Your task to perform on an android device: What's the weather going to be this weekend? Image 0: 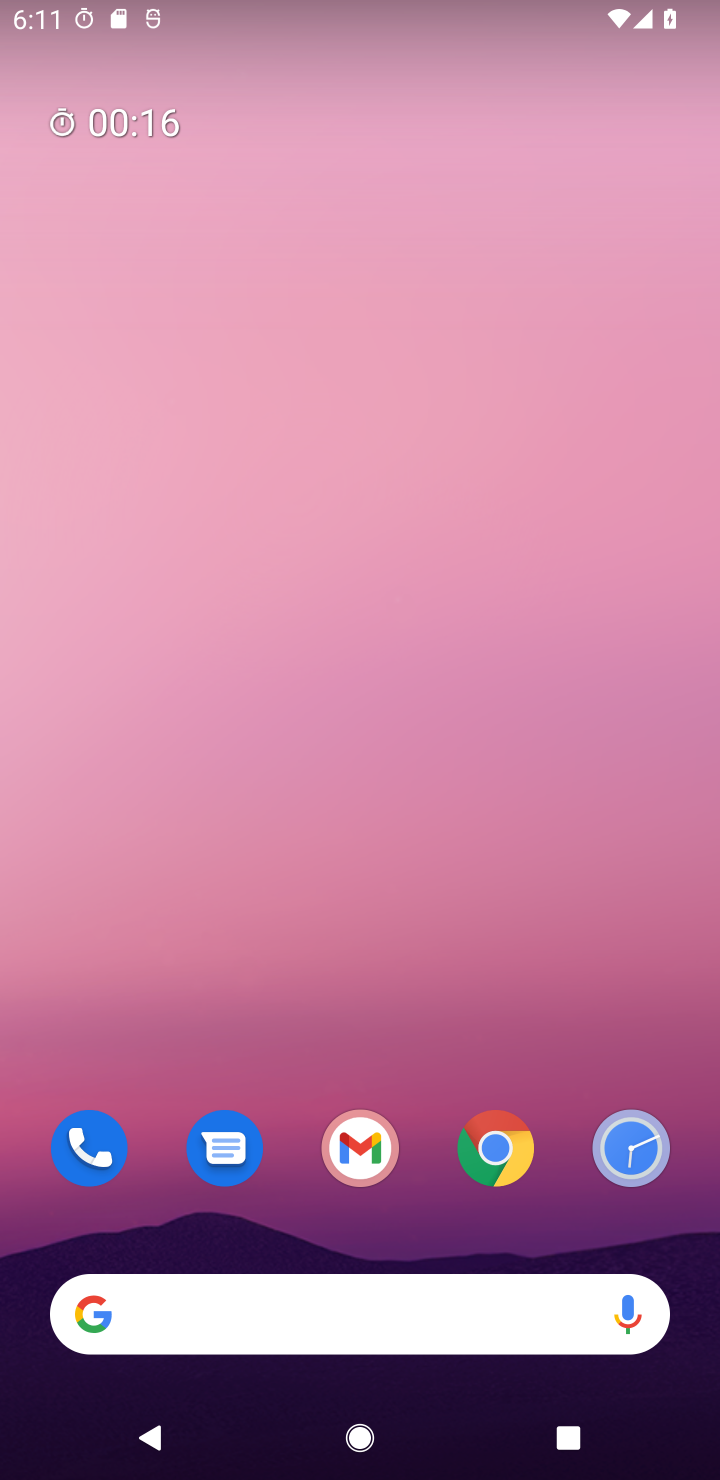
Step 0: click (331, 1311)
Your task to perform on an android device: What's the weather going to be this weekend? Image 1: 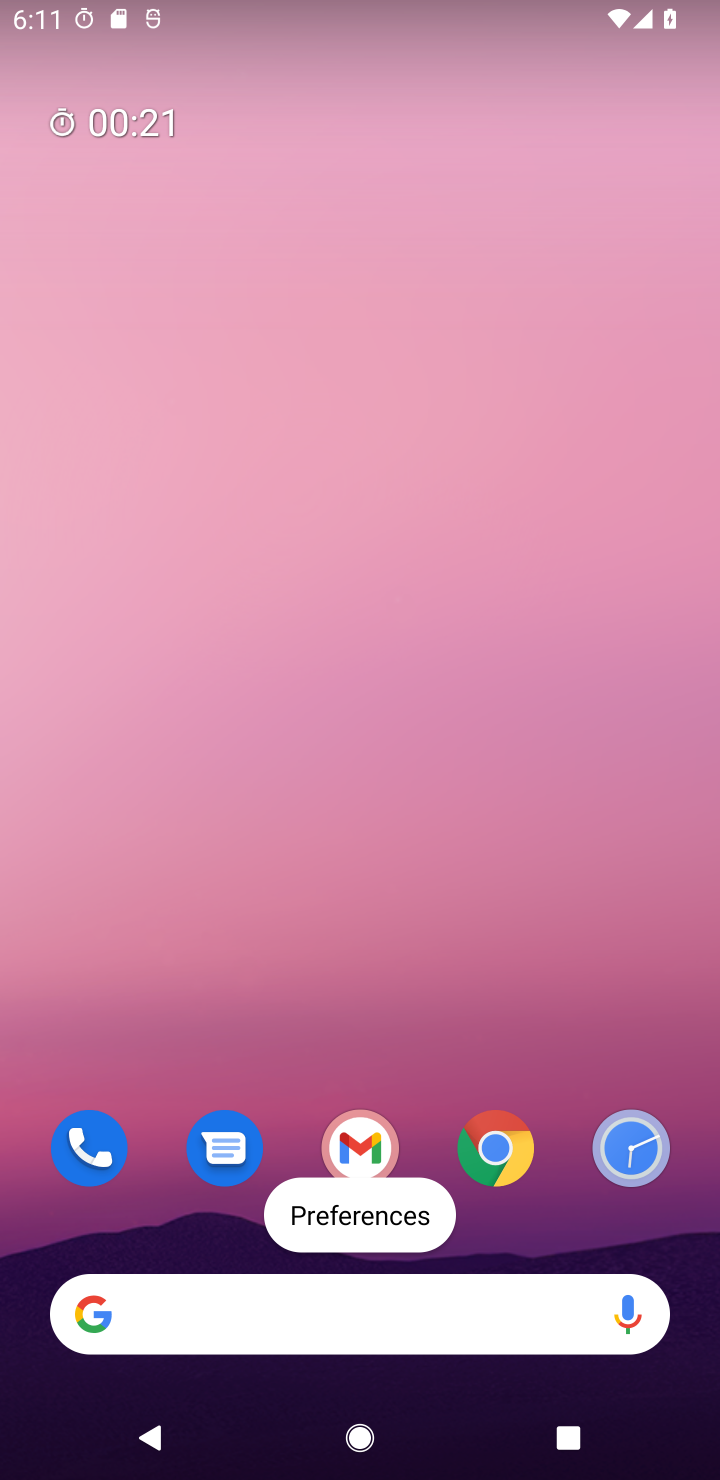
Step 1: drag from (169, 1234) to (418, 39)
Your task to perform on an android device: What's the weather going to be this weekend? Image 2: 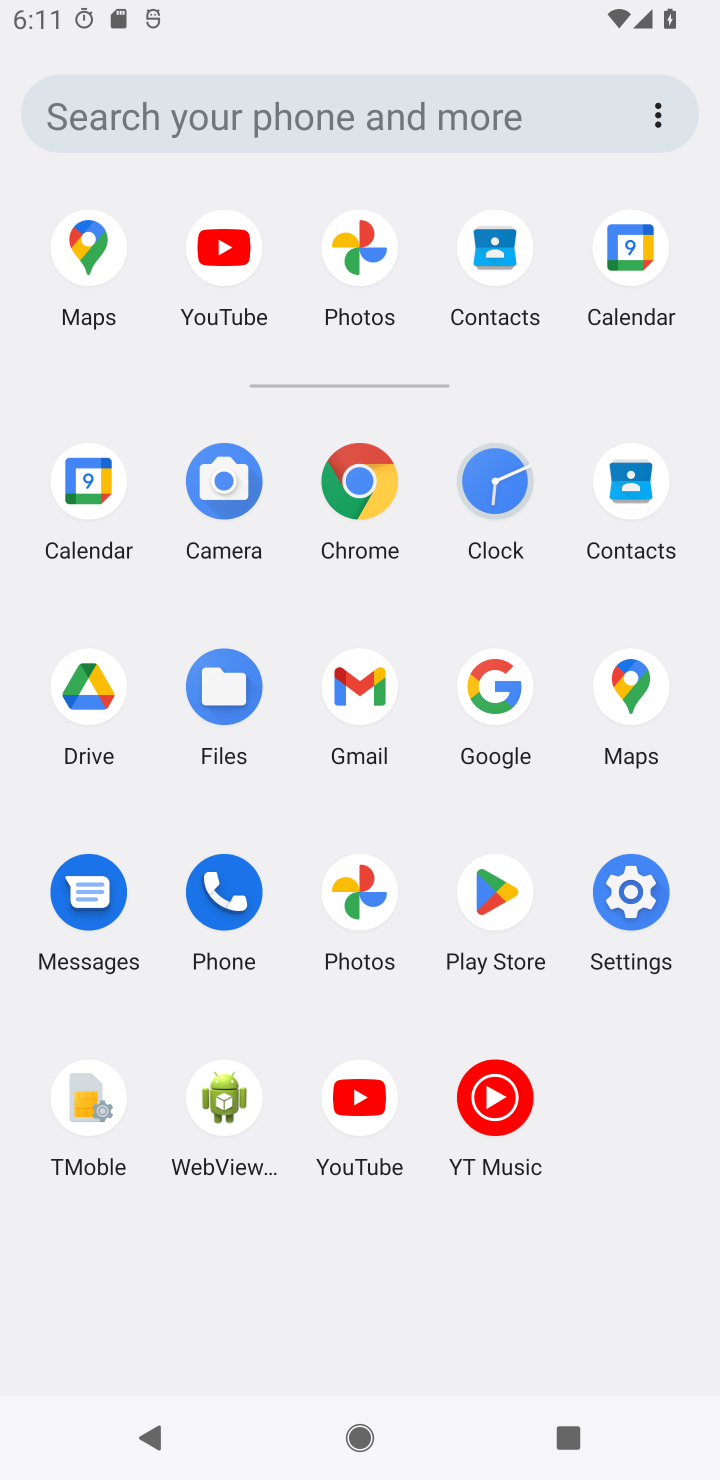
Step 2: click (500, 700)
Your task to perform on an android device: What's the weather going to be this weekend? Image 3: 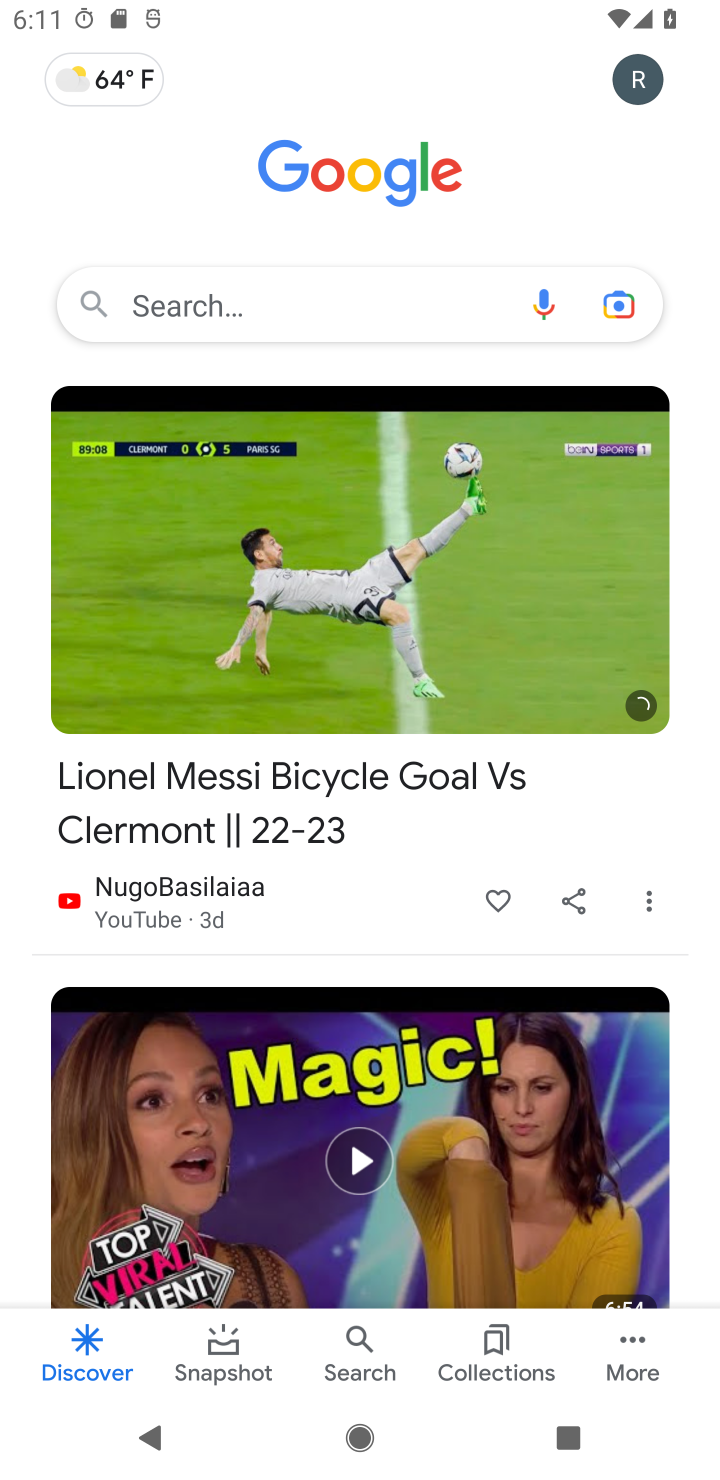
Step 3: click (352, 284)
Your task to perform on an android device: What's the weather going to be this weekend? Image 4: 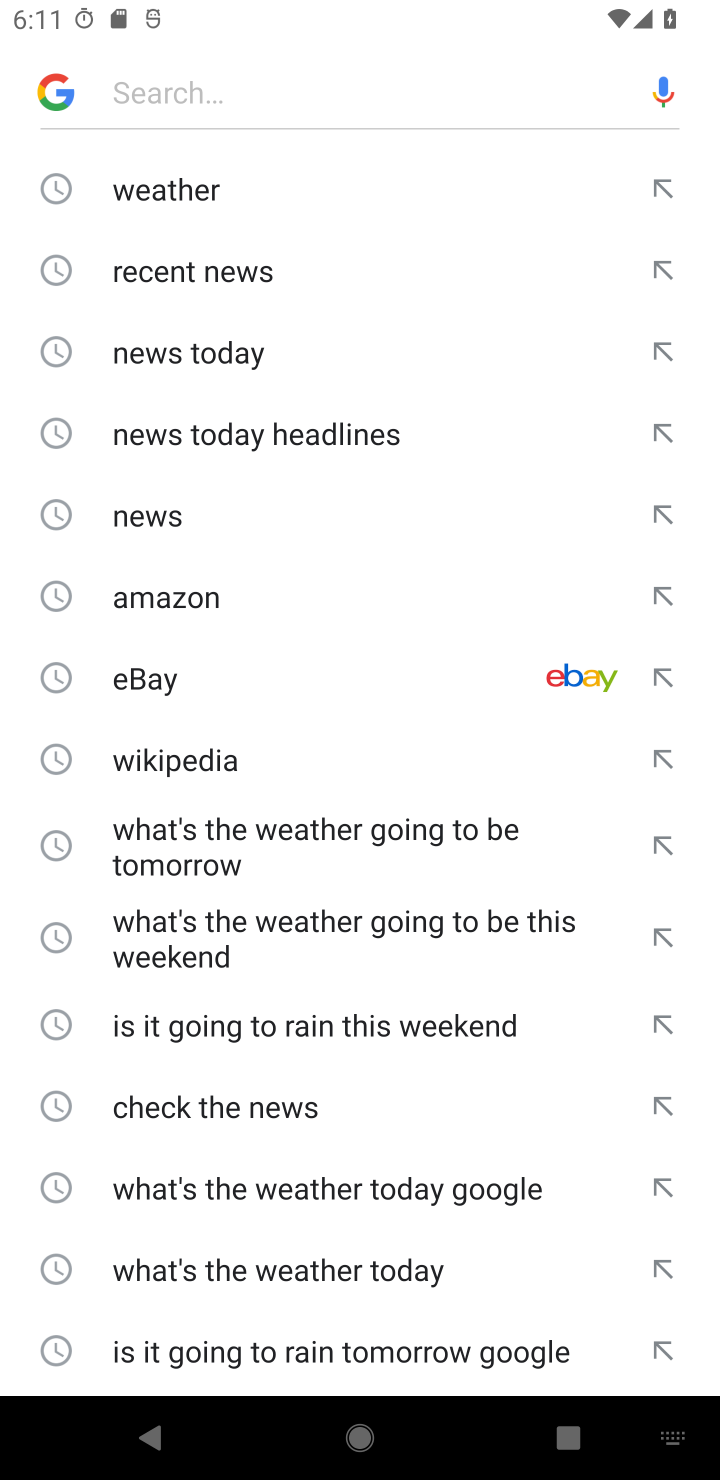
Step 4: type "weather"
Your task to perform on an android device: What's the weather going to be this weekend? Image 5: 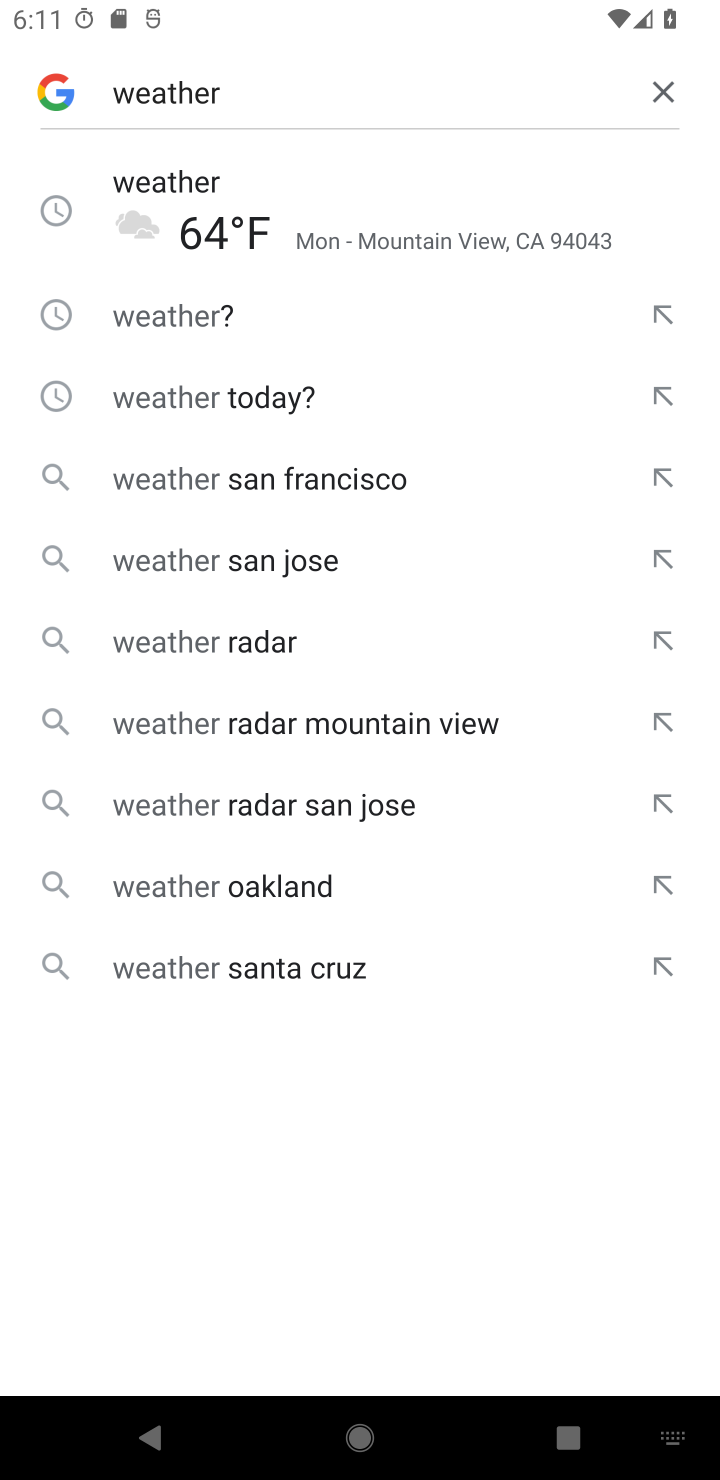
Step 5: click (145, 186)
Your task to perform on an android device: What's the weather going to be this weekend? Image 6: 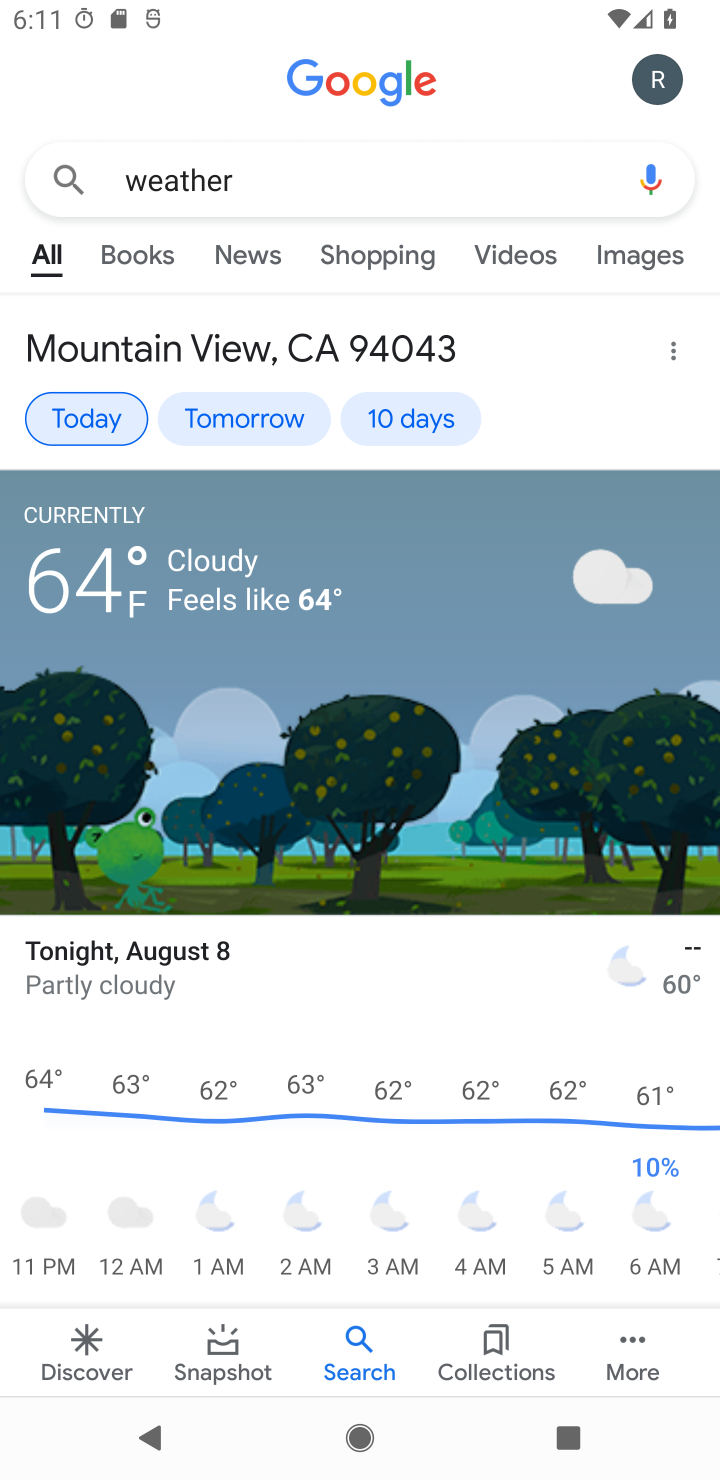
Step 6: click (409, 422)
Your task to perform on an android device: What's the weather going to be this weekend? Image 7: 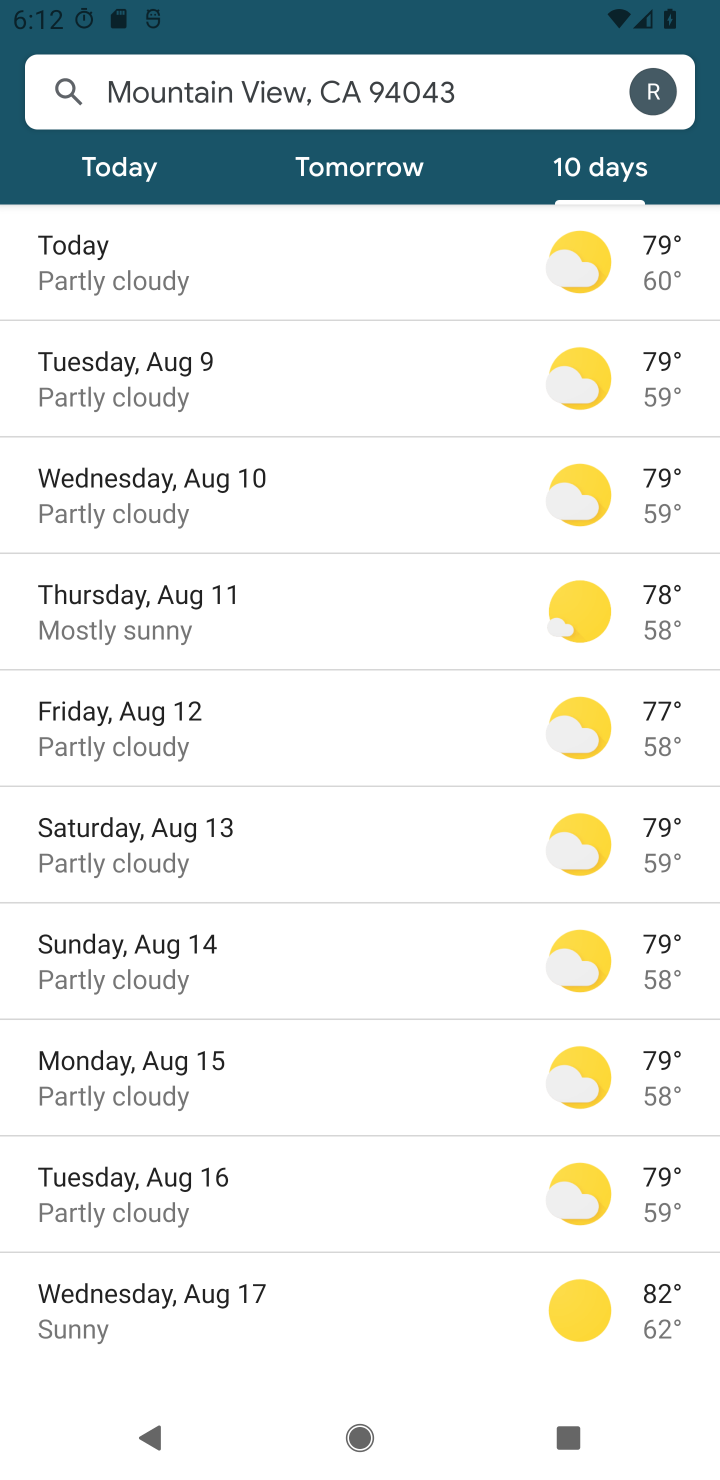
Step 7: task complete